Your task to perform on an android device: View the shopping cart on costco. Search for razer blackwidow on costco, select the first entry, add it to the cart, then select checkout. Image 0: 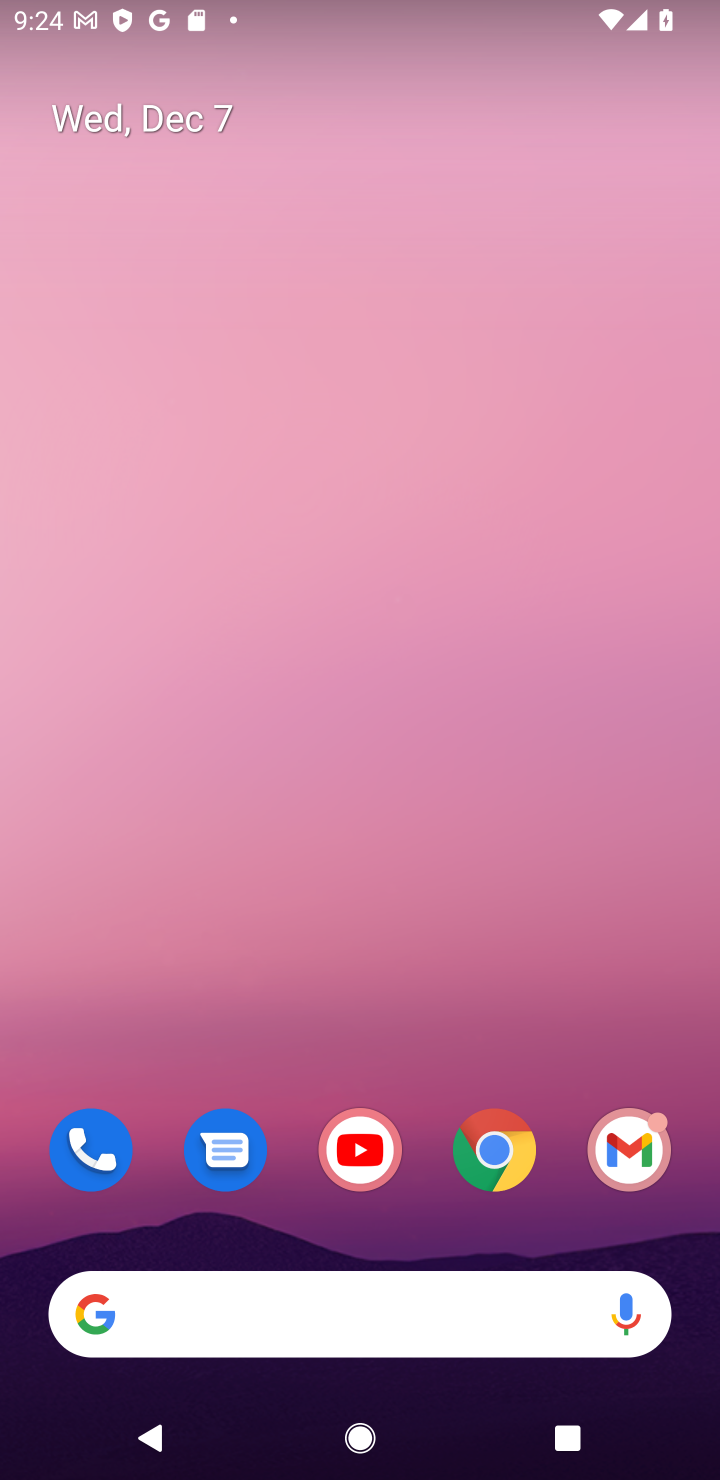
Step 0: click (499, 1151)
Your task to perform on an android device: View the shopping cart on costco. Search for razer blackwidow on costco, select the first entry, add it to the cart, then select checkout. Image 1: 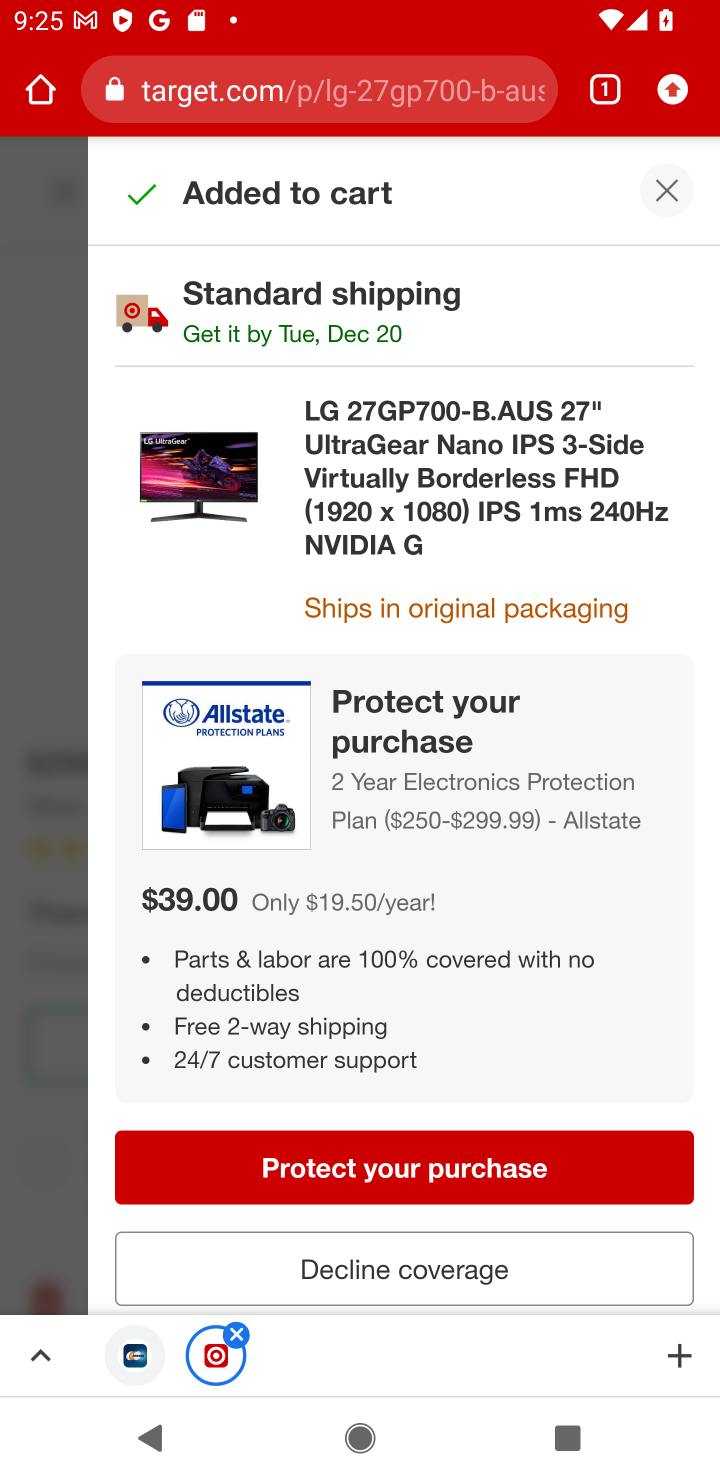
Step 1: click (659, 190)
Your task to perform on an android device: View the shopping cart on costco. Search for razer blackwidow on costco, select the first entry, add it to the cart, then select checkout. Image 2: 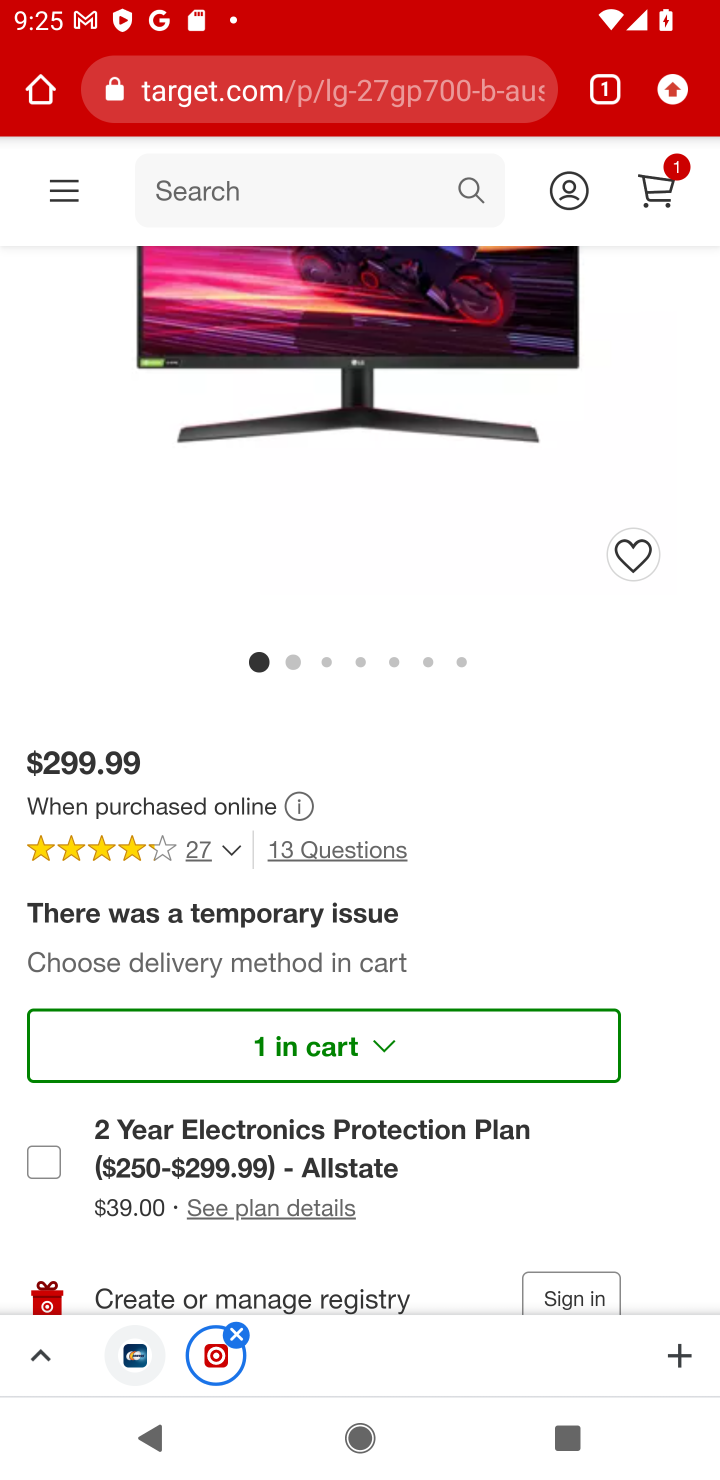
Step 2: click (413, 81)
Your task to perform on an android device: View the shopping cart on costco. Search for razer blackwidow on costco, select the first entry, add it to the cart, then select checkout. Image 3: 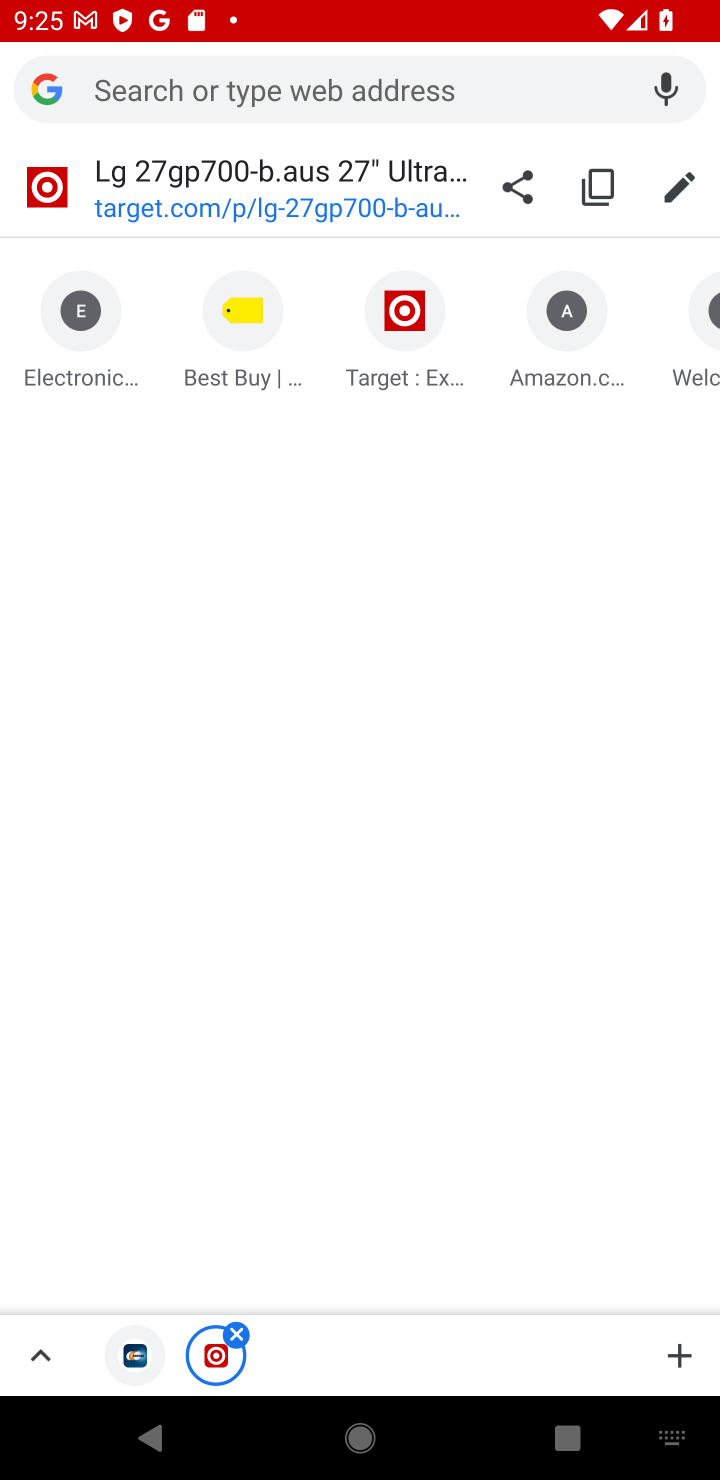
Step 3: type "costco"
Your task to perform on an android device: View the shopping cart on costco. Search for razer blackwidow on costco, select the first entry, add it to the cart, then select checkout. Image 4: 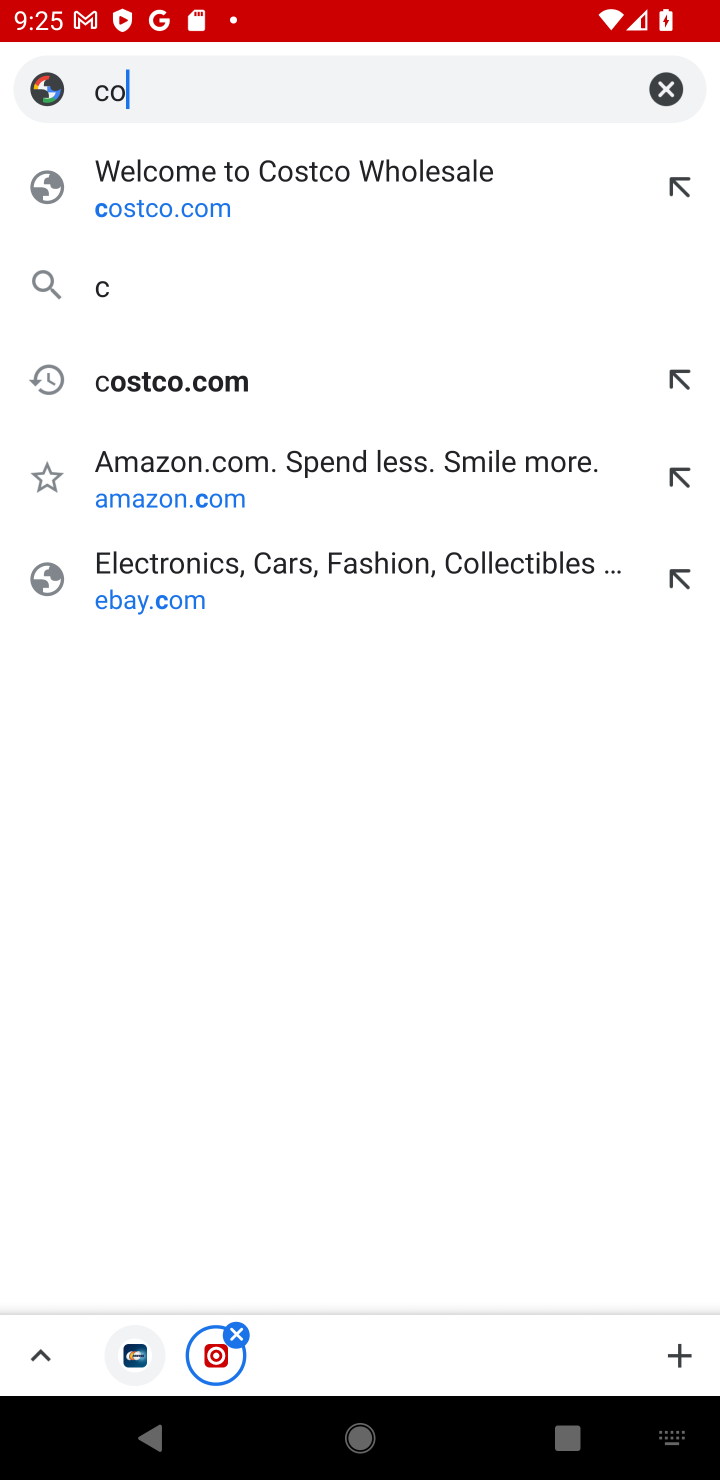
Step 4: press enter
Your task to perform on an android device: View the shopping cart on costco. Search for razer blackwidow on costco, select the first entry, add it to the cart, then select checkout. Image 5: 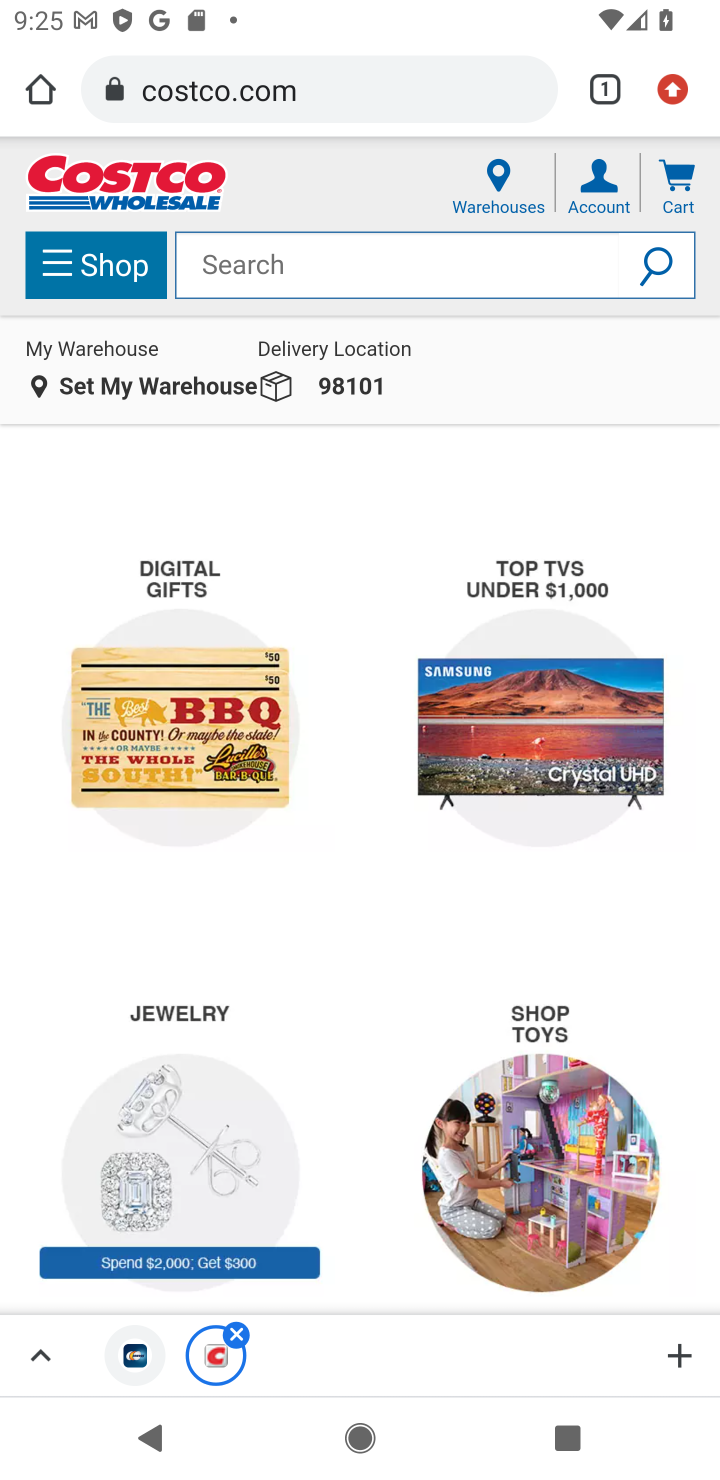
Step 5: click (385, 254)
Your task to perform on an android device: View the shopping cart on costco. Search for razer blackwidow on costco, select the first entry, add it to the cart, then select checkout. Image 6: 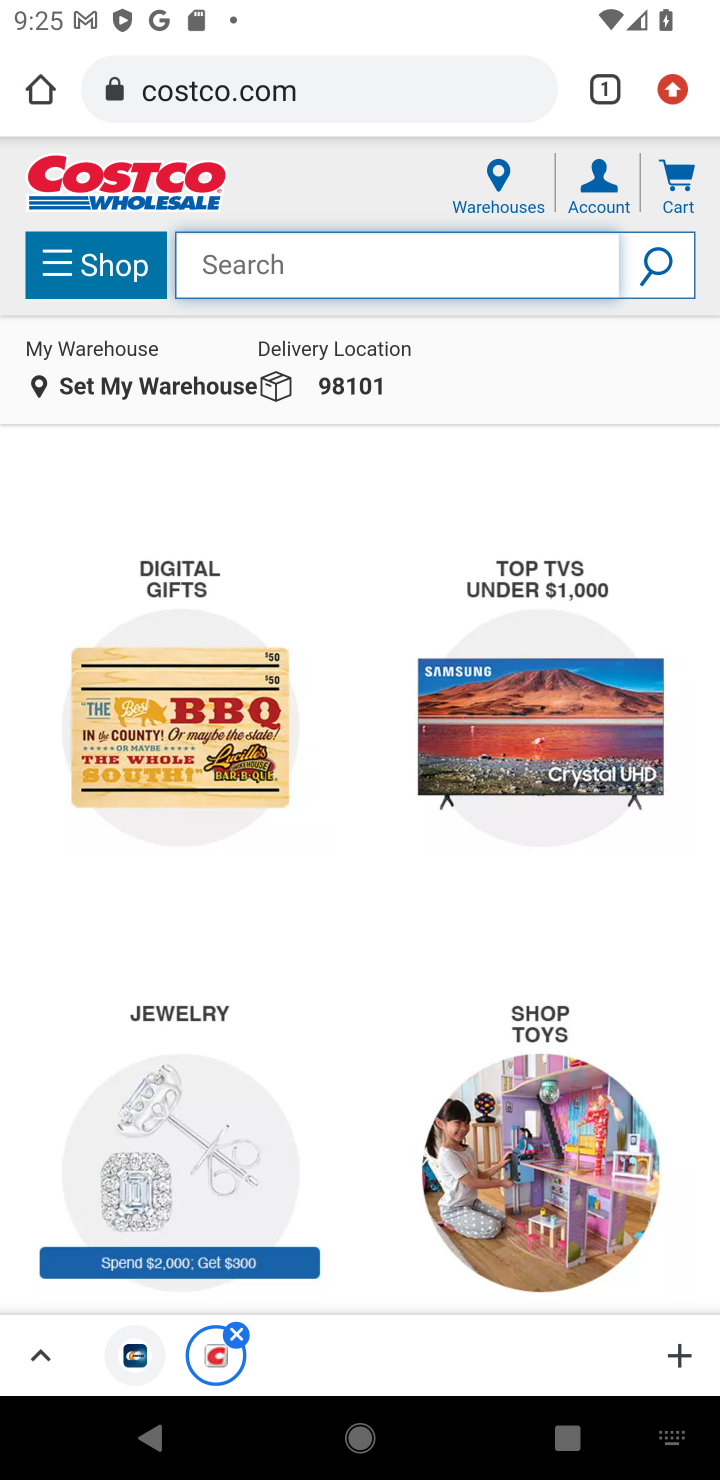
Step 6: press enter
Your task to perform on an android device: View the shopping cart on costco. Search for razer blackwidow on costco, select the first entry, add it to the cart, then select checkout. Image 7: 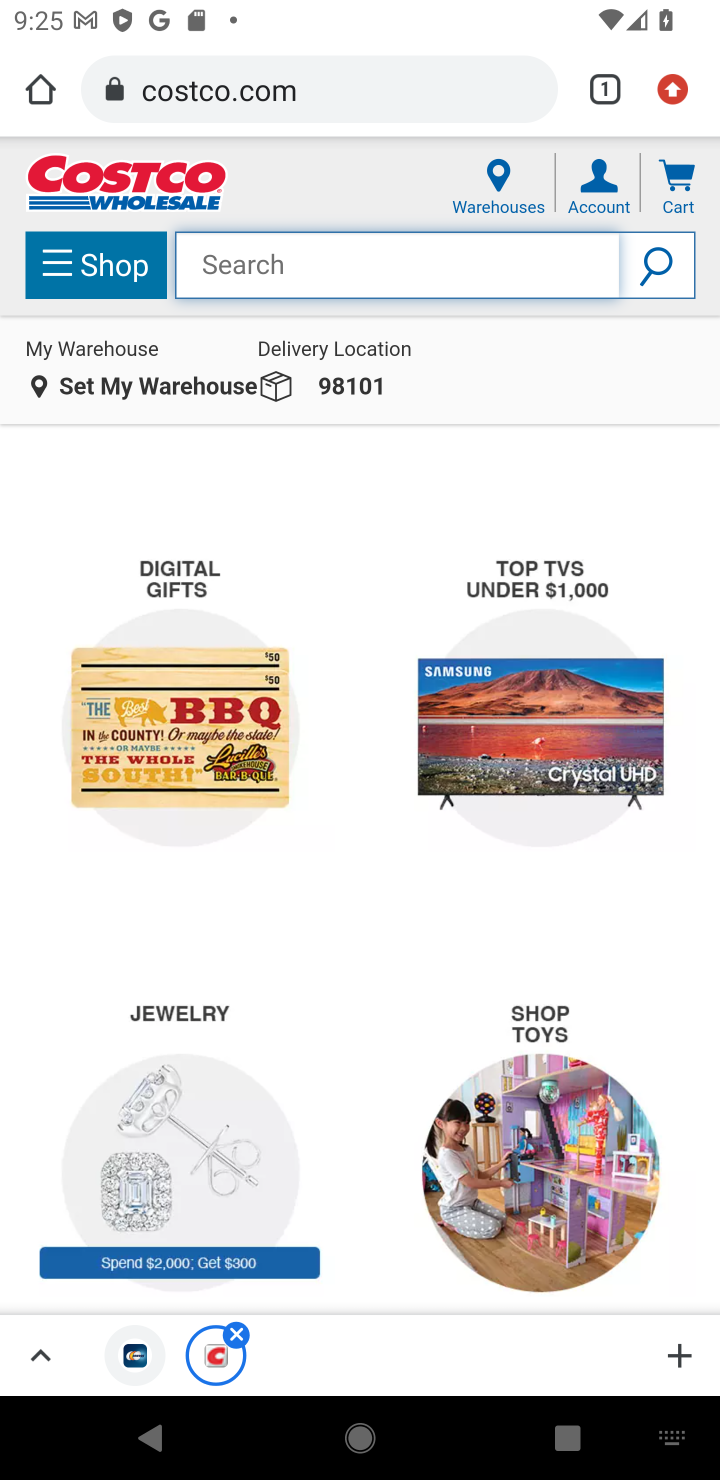
Step 7: type "razer blackwidow"
Your task to perform on an android device: View the shopping cart on costco. Search for razer blackwidow on costco, select the first entry, add it to the cart, then select checkout. Image 8: 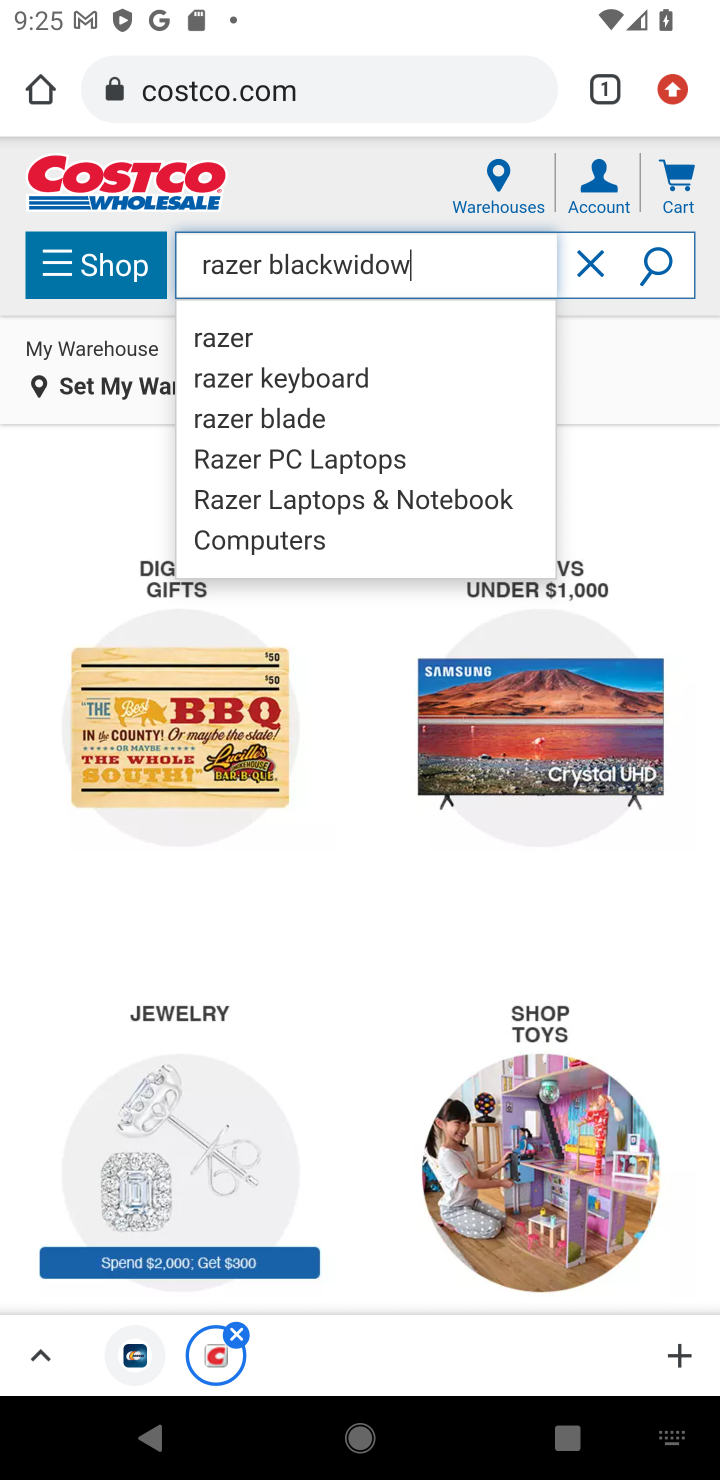
Step 8: click (656, 263)
Your task to perform on an android device: View the shopping cart on costco. Search for razer blackwidow on costco, select the first entry, add it to the cart, then select checkout. Image 9: 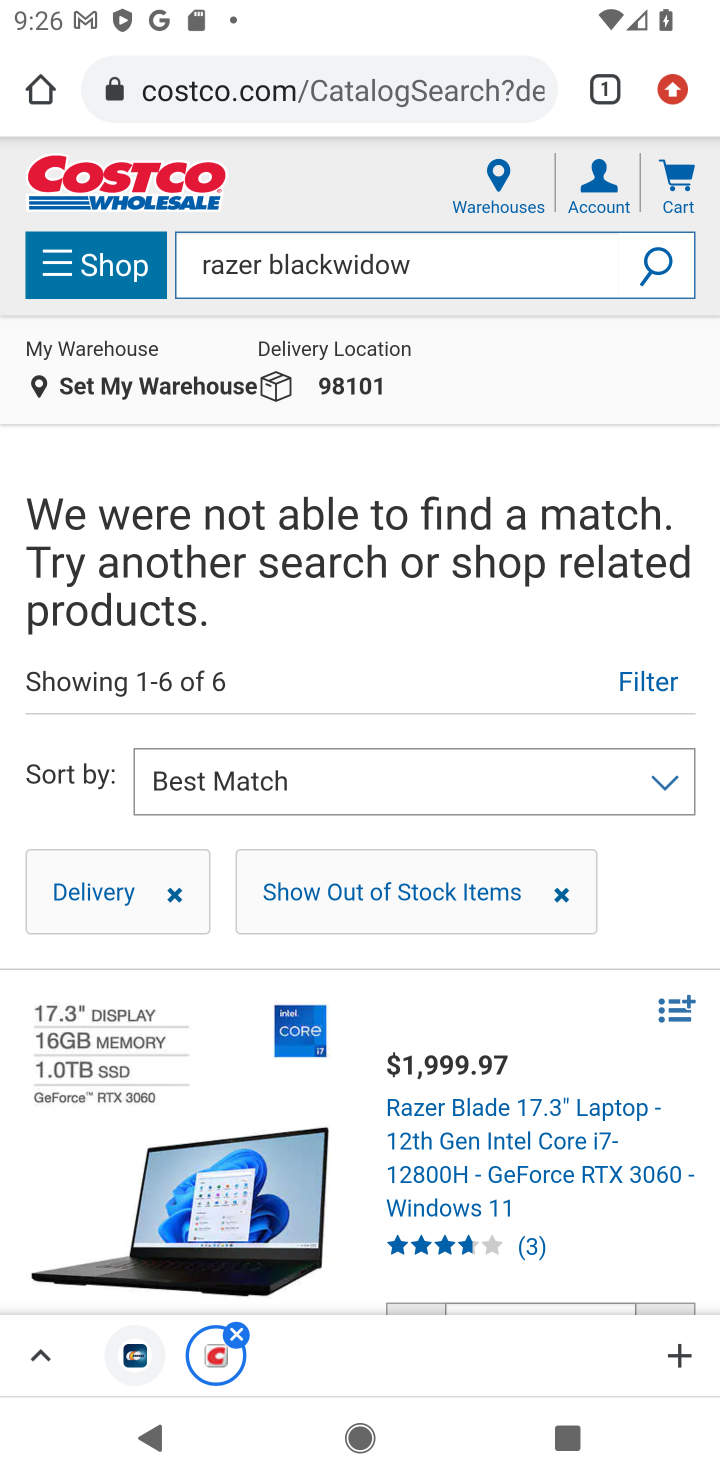
Step 9: task complete